Your task to perform on an android device: clear history in the chrome app Image 0: 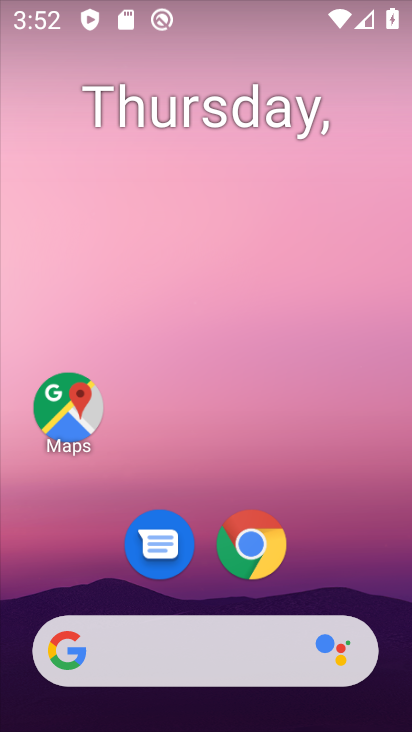
Step 0: click (273, 556)
Your task to perform on an android device: clear history in the chrome app Image 1: 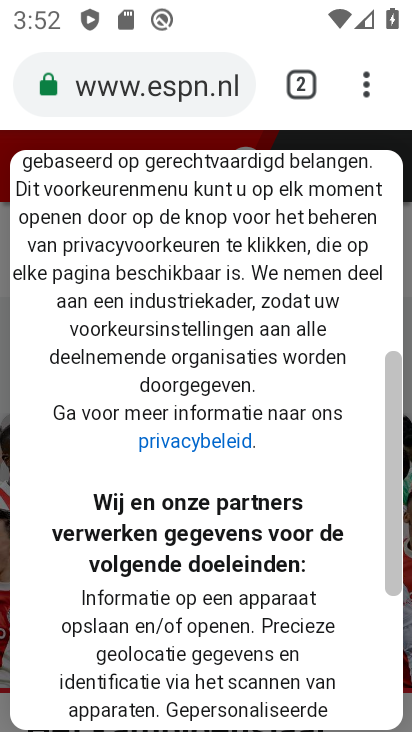
Step 1: click (361, 76)
Your task to perform on an android device: clear history in the chrome app Image 2: 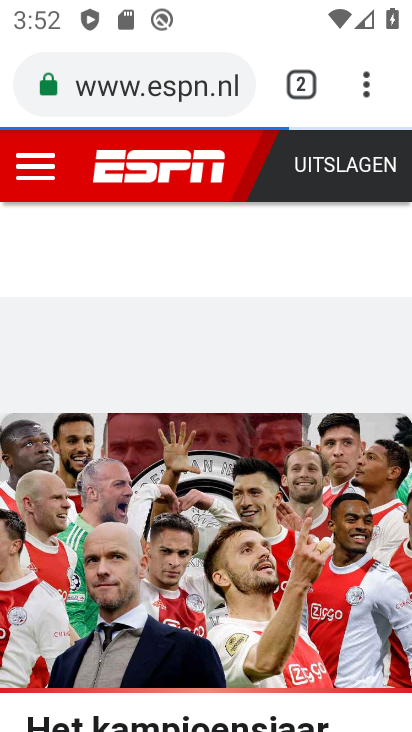
Step 2: click (365, 79)
Your task to perform on an android device: clear history in the chrome app Image 3: 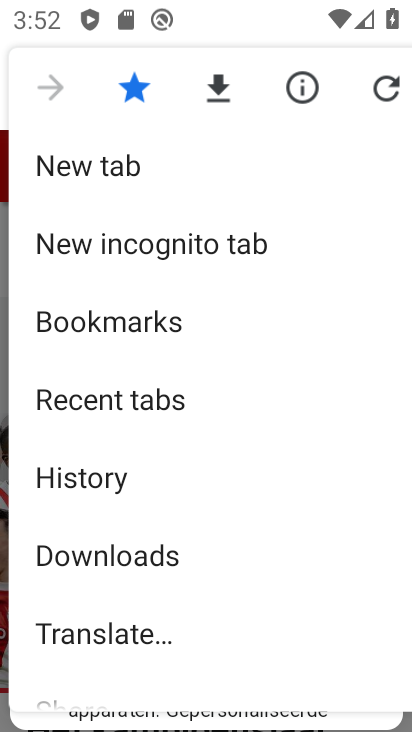
Step 3: drag from (268, 605) to (199, 107)
Your task to perform on an android device: clear history in the chrome app Image 4: 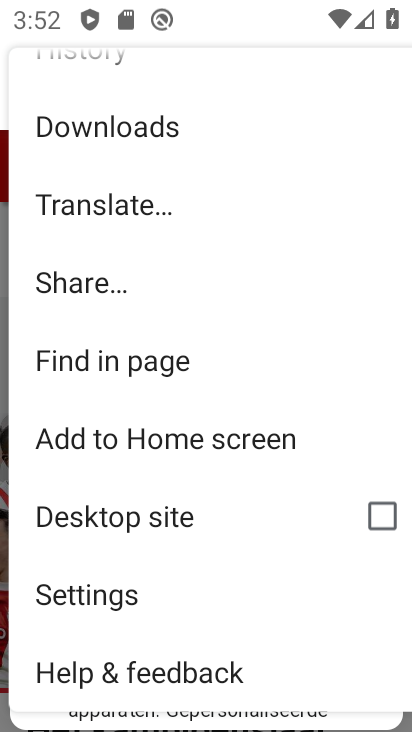
Step 4: click (166, 589)
Your task to perform on an android device: clear history in the chrome app Image 5: 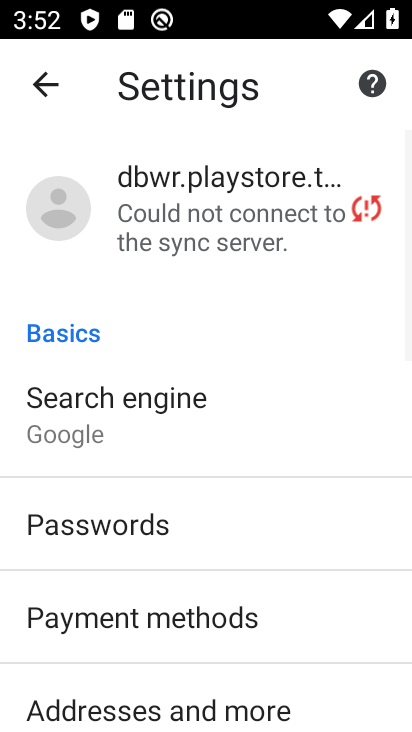
Step 5: drag from (187, 608) to (196, 234)
Your task to perform on an android device: clear history in the chrome app Image 6: 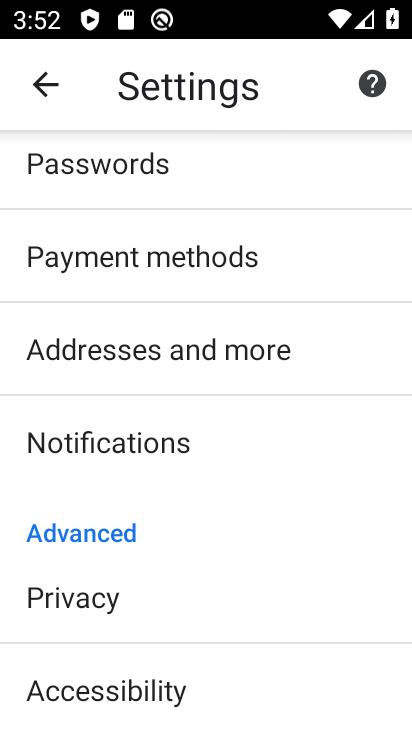
Step 6: drag from (223, 611) to (228, 124)
Your task to perform on an android device: clear history in the chrome app Image 7: 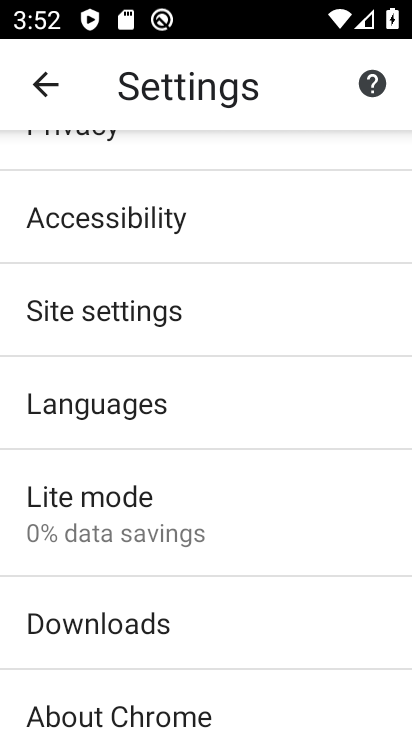
Step 7: click (136, 316)
Your task to perform on an android device: clear history in the chrome app Image 8: 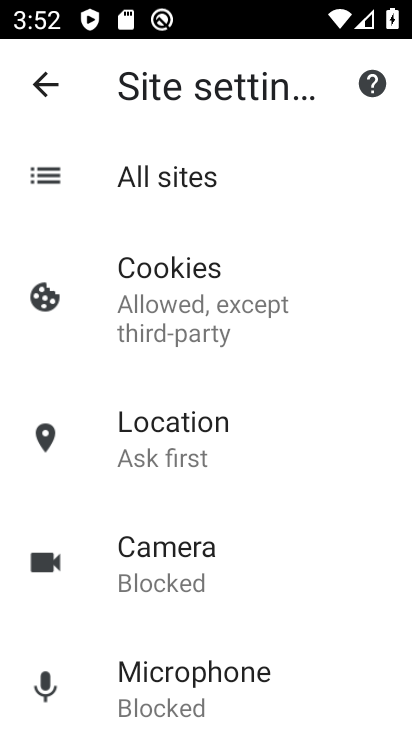
Step 8: drag from (288, 540) to (288, 27)
Your task to perform on an android device: clear history in the chrome app Image 9: 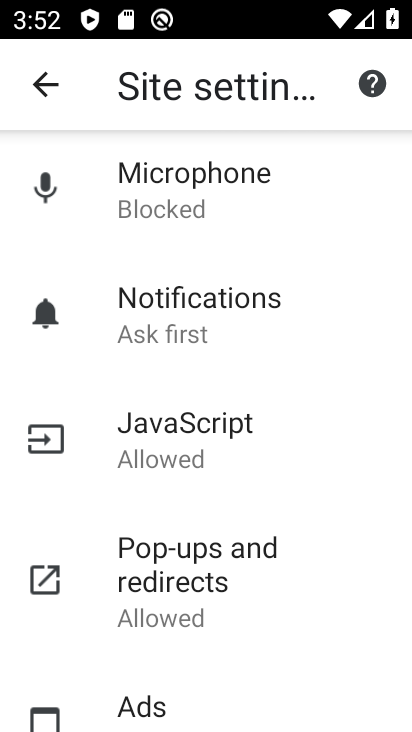
Step 9: drag from (280, 577) to (270, 193)
Your task to perform on an android device: clear history in the chrome app Image 10: 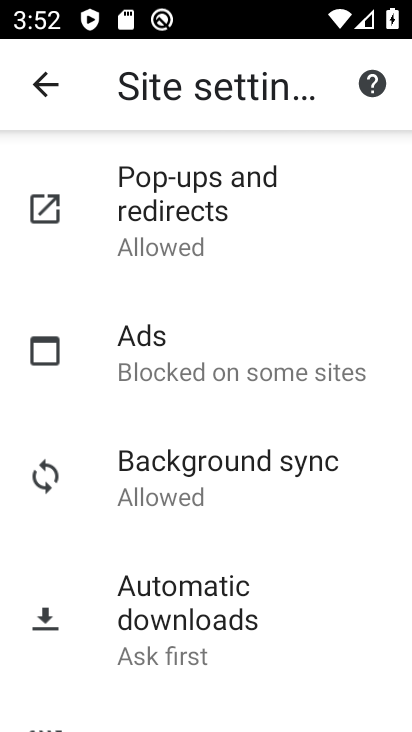
Step 10: drag from (285, 601) to (269, 142)
Your task to perform on an android device: clear history in the chrome app Image 11: 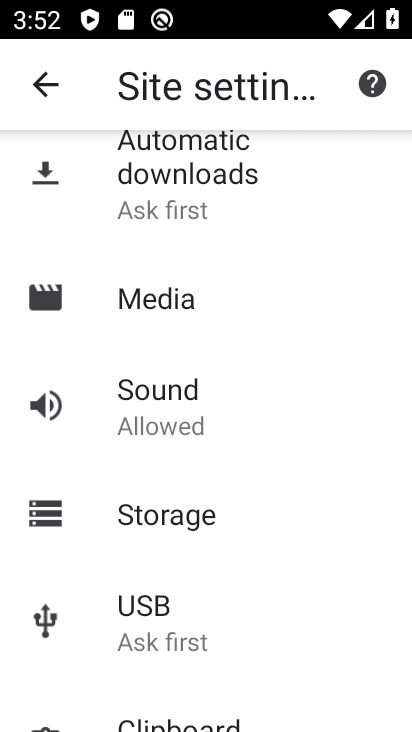
Step 11: drag from (269, 513) to (280, 113)
Your task to perform on an android device: clear history in the chrome app Image 12: 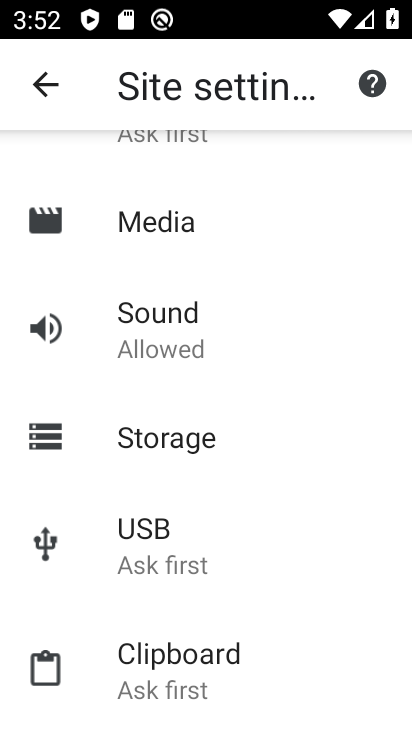
Step 12: drag from (272, 637) to (260, 171)
Your task to perform on an android device: clear history in the chrome app Image 13: 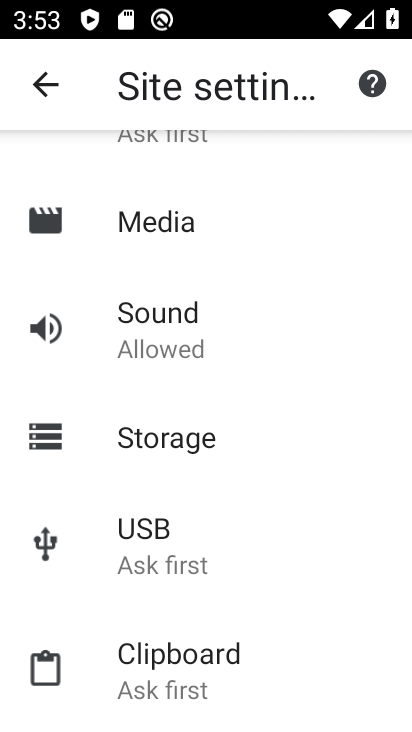
Step 13: press back button
Your task to perform on an android device: clear history in the chrome app Image 14: 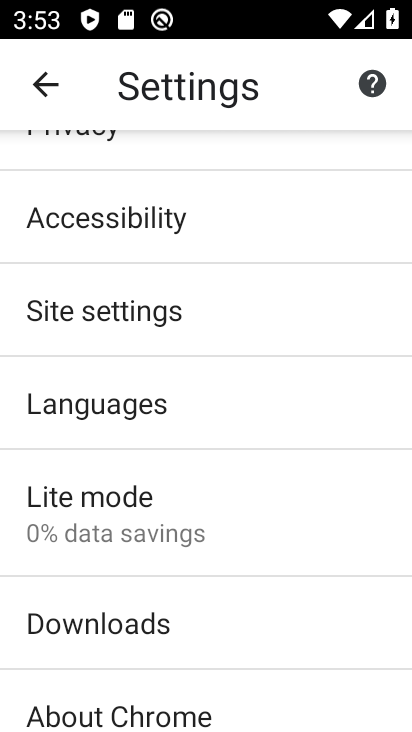
Step 14: press back button
Your task to perform on an android device: clear history in the chrome app Image 15: 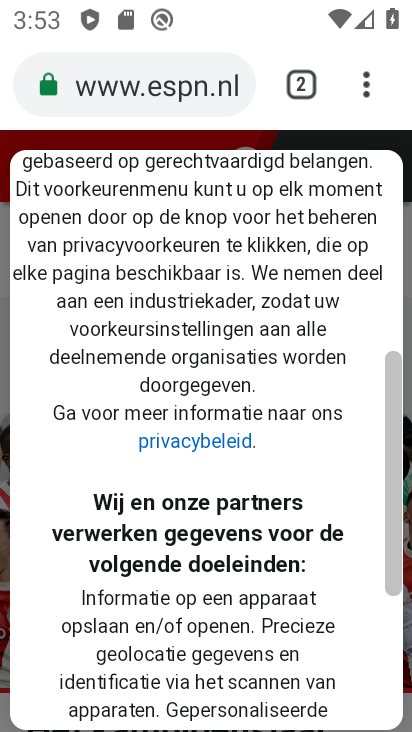
Step 15: click (297, 90)
Your task to perform on an android device: clear history in the chrome app Image 16: 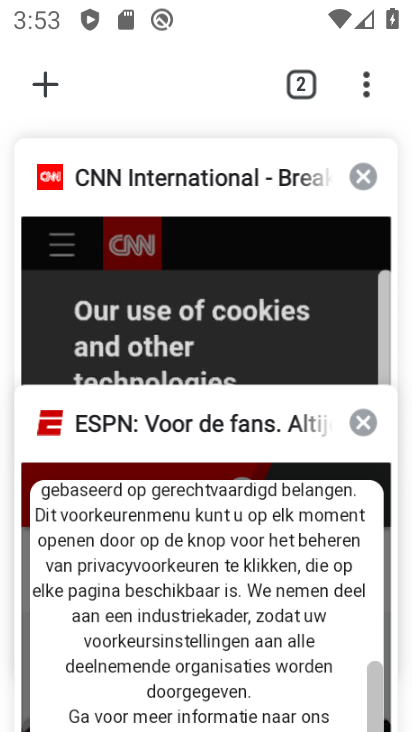
Step 16: click (291, 83)
Your task to perform on an android device: clear history in the chrome app Image 17: 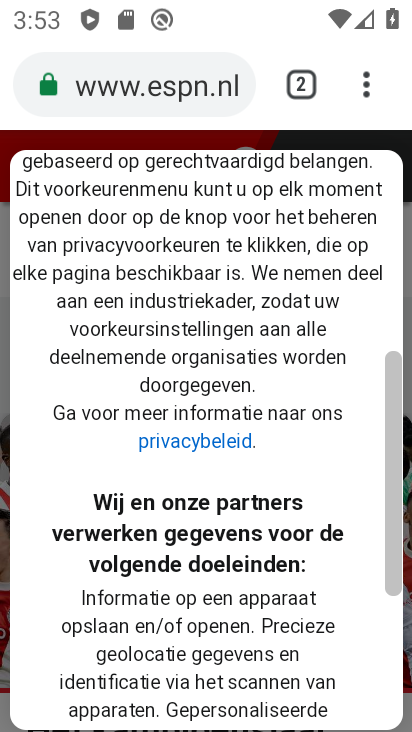
Step 17: click (361, 77)
Your task to perform on an android device: clear history in the chrome app Image 18: 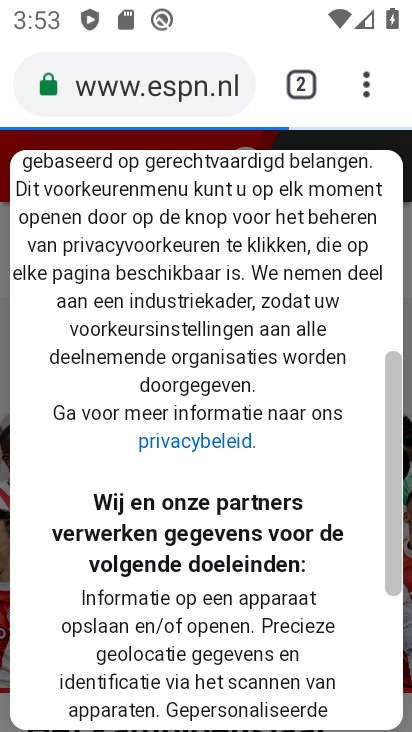
Step 18: click (370, 82)
Your task to perform on an android device: clear history in the chrome app Image 19: 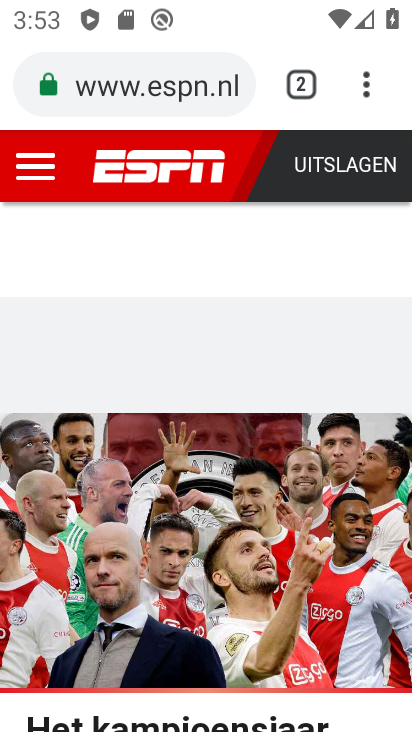
Step 19: click (362, 84)
Your task to perform on an android device: clear history in the chrome app Image 20: 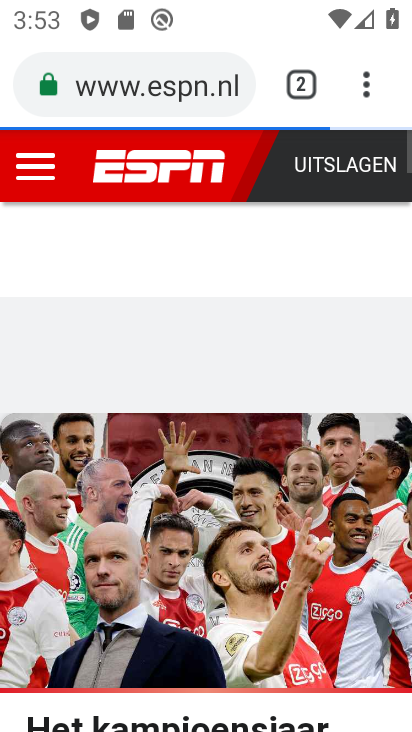
Step 20: click (363, 83)
Your task to perform on an android device: clear history in the chrome app Image 21: 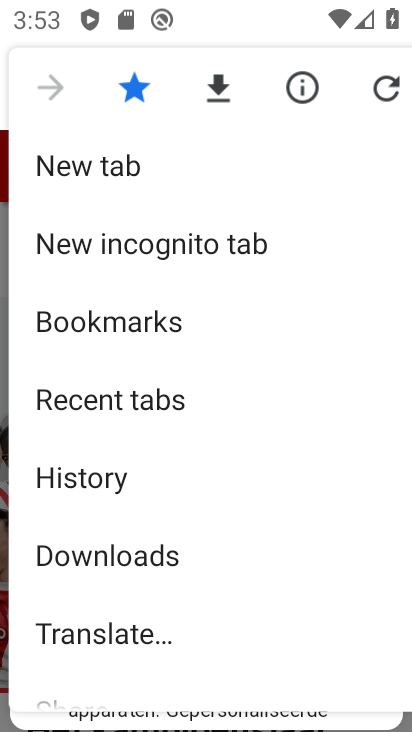
Step 21: click (114, 477)
Your task to perform on an android device: clear history in the chrome app Image 22: 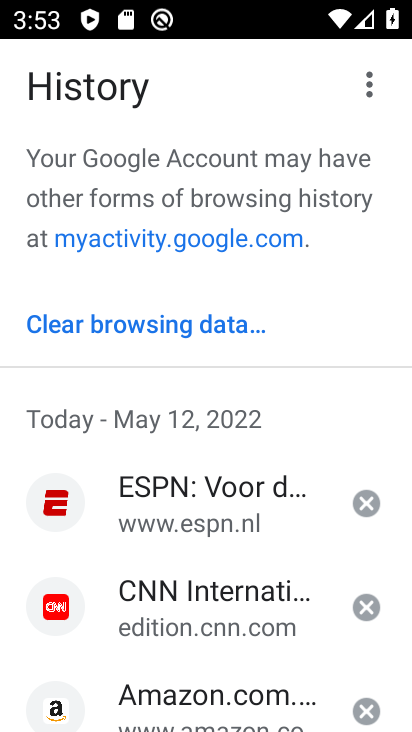
Step 22: click (180, 333)
Your task to perform on an android device: clear history in the chrome app Image 23: 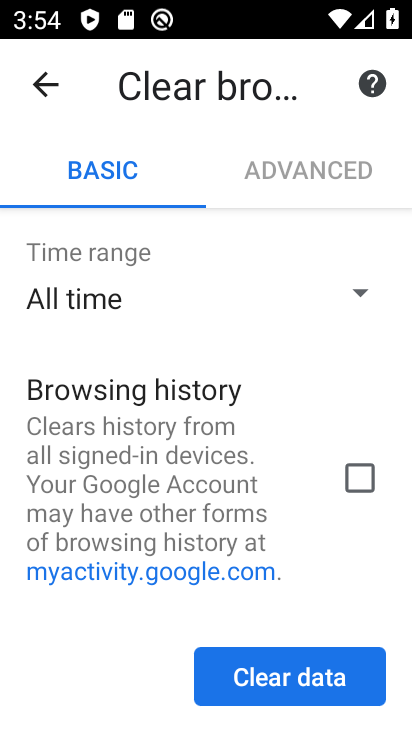
Step 23: click (342, 479)
Your task to perform on an android device: clear history in the chrome app Image 24: 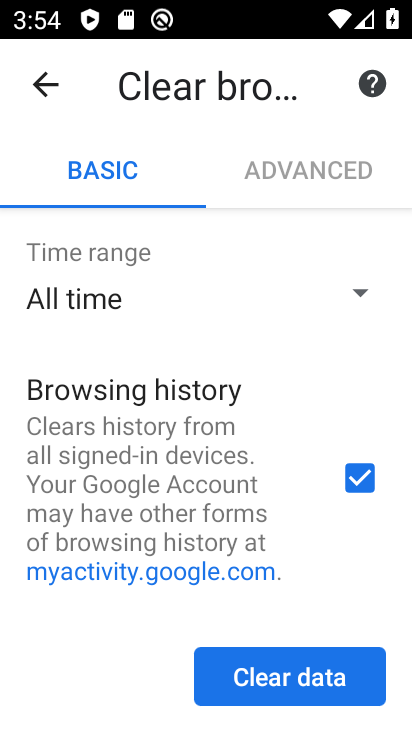
Step 24: click (336, 691)
Your task to perform on an android device: clear history in the chrome app Image 25: 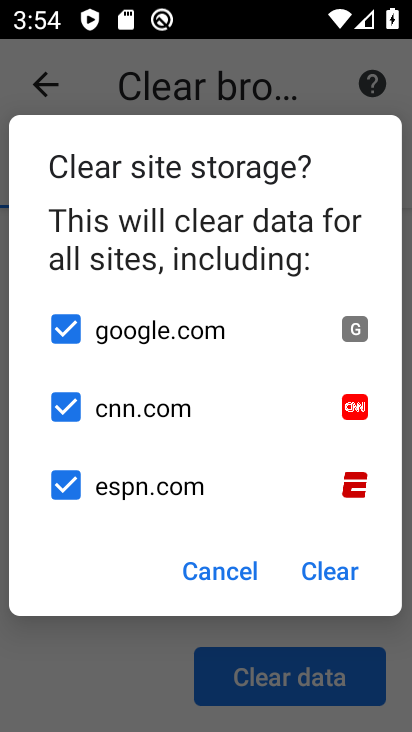
Step 25: click (318, 572)
Your task to perform on an android device: clear history in the chrome app Image 26: 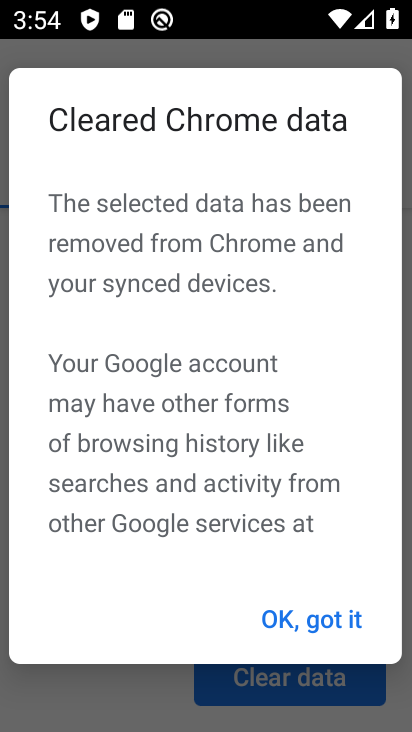
Step 26: click (300, 615)
Your task to perform on an android device: clear history in the chrome app Image 27: 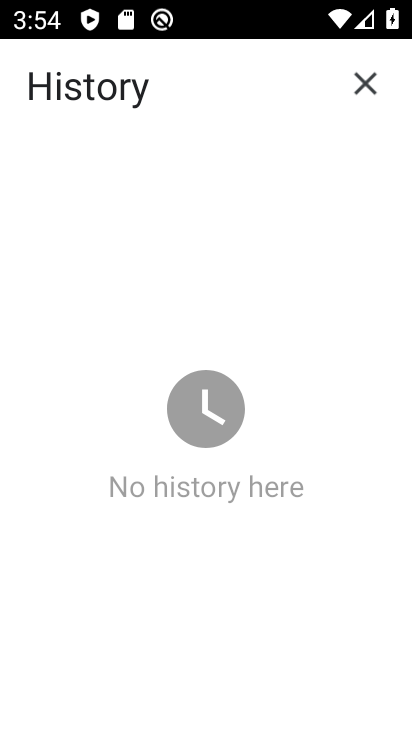
Step 27: task complete